Your task to perform on an android device: change your default location settings in chrome Image 0: 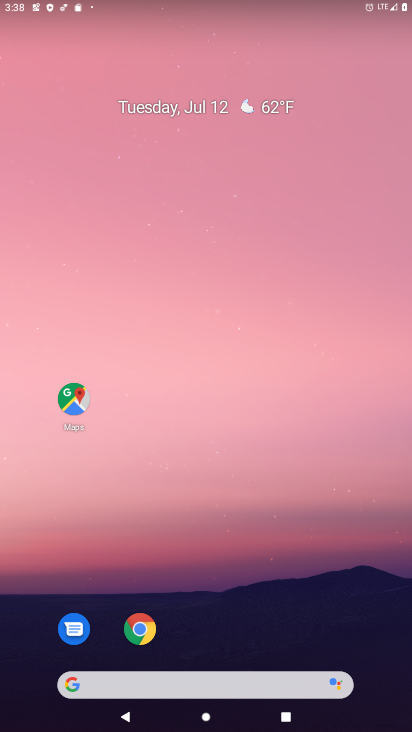
Step 0: drag from (218, 652) to (148, 59)
Your task to perform on an android device: change your default location settings in chrome Image 1: 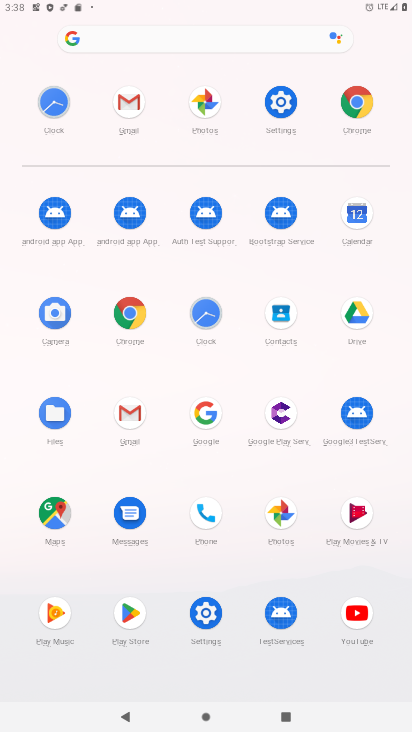
Step 1: click (351, 108)
Your task to perform on an android device: change your default location settings in chrome Image 2: 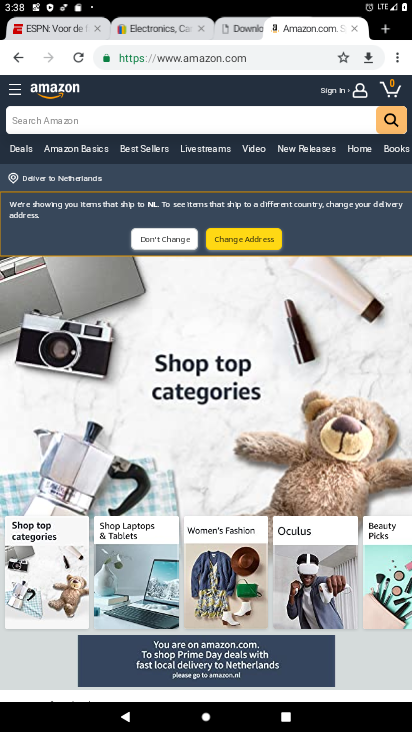
Step 2: drag from (393, 51) to (319, 379)
Your task to perform on an android device: change your default location settings in chrome Image 3: 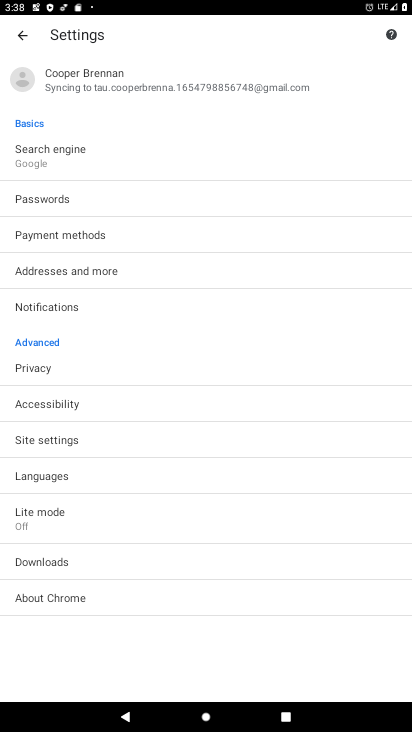
Step 3: click (32, 438)
Your task to perform on an android device: change your default location settings in chrome Image 4: 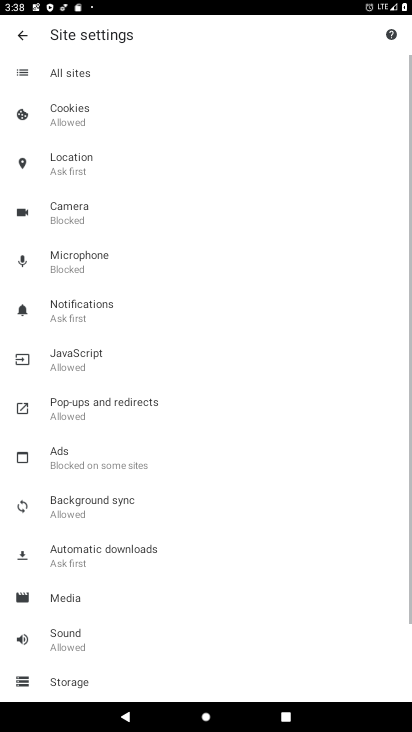
Step 4: click (63, 146)
Your task to perform on an android device: change your default location settings in chrome Image 5: 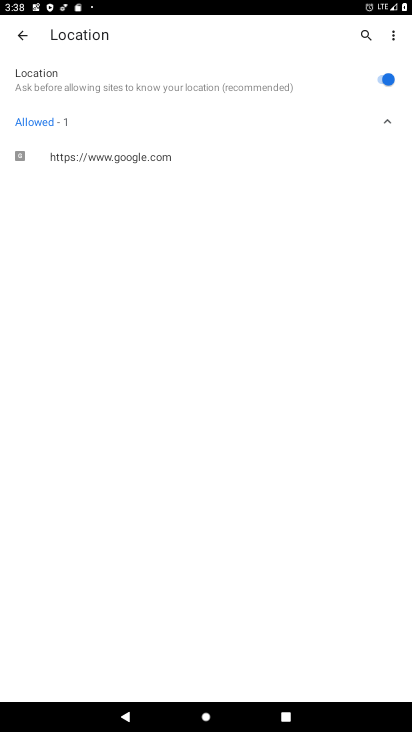
Step 5: click (389, 80)
Your task to perform on an android device: change your default location settings in chrome Image 6: 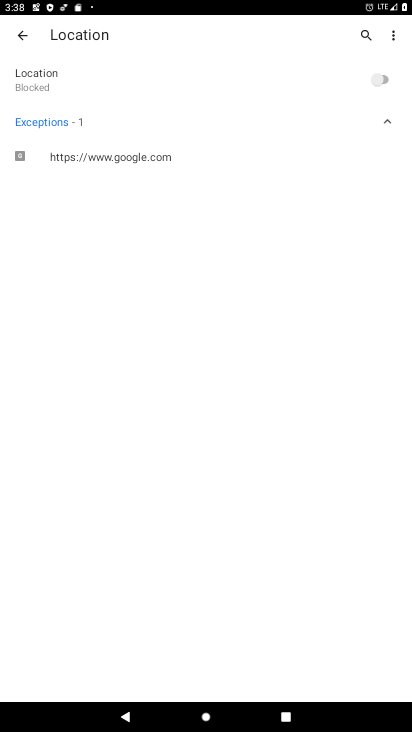
Step 6: task complete